Your task to perform on an android device: change the clock display to digital Image 0: 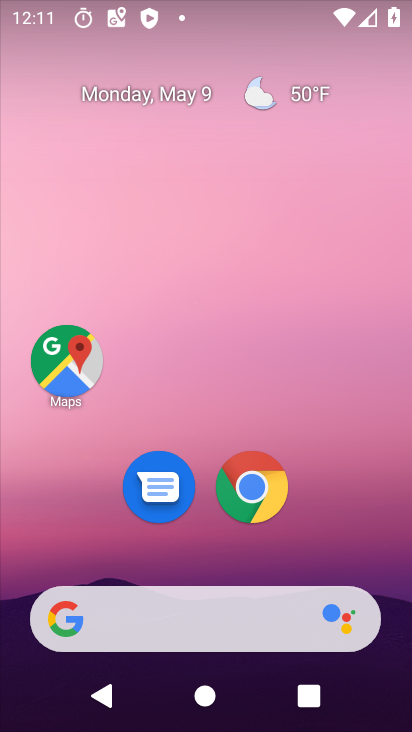
Step 0: drag from (319, 540) to (326, 87)
Your task to perform on an android device: change the clock display to digital Image 1: 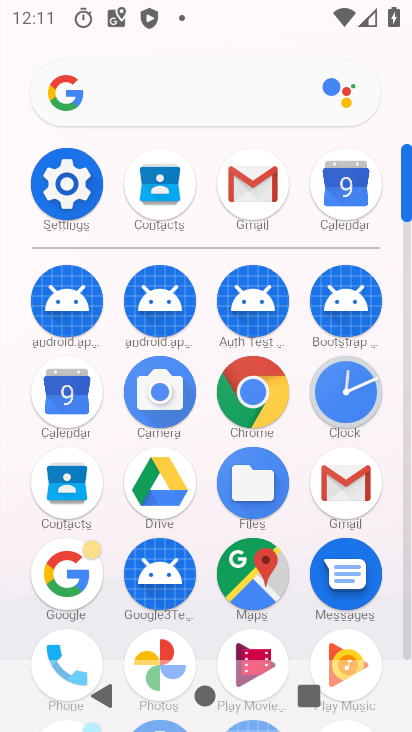
Step 1: click (341, 402)
Your task to perform on an android device: change the clock display to digital Image 2: 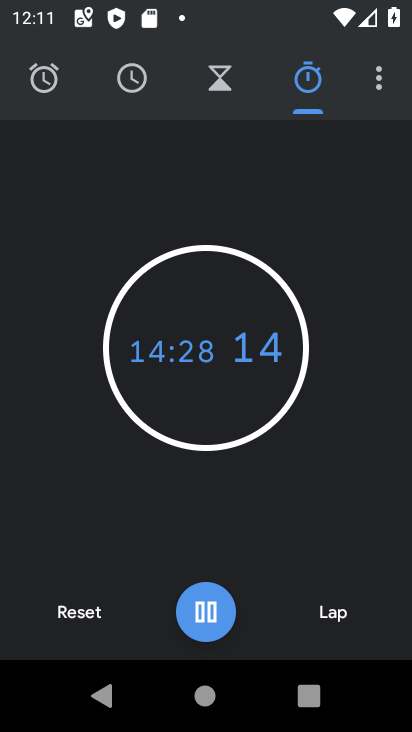
Step 2: click (382, 85)
Your task to perform on an android device: change the clock display to digital Image 3: 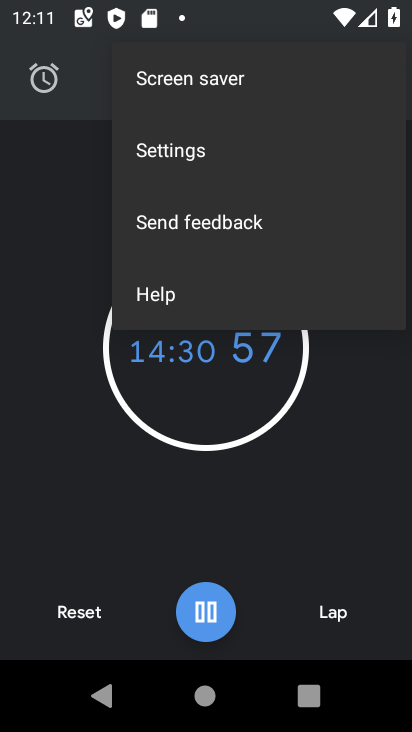
Step 3: click (213, 143)
Your task to perform on an android device: change the clock display to digital Image 4: 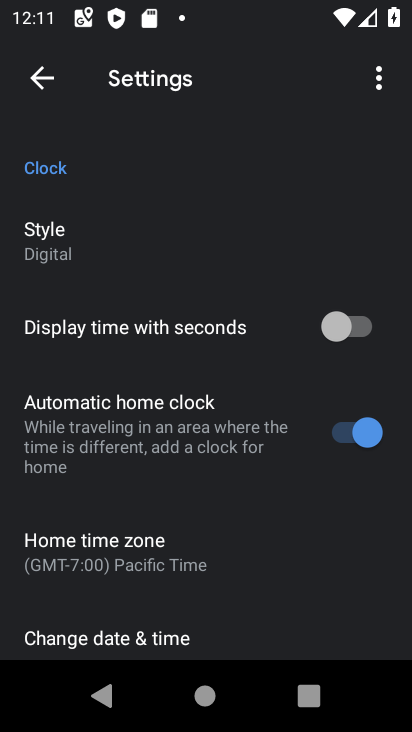
Step 4: task complete